Your task to perform on an android device: Open notification settings Image 0: 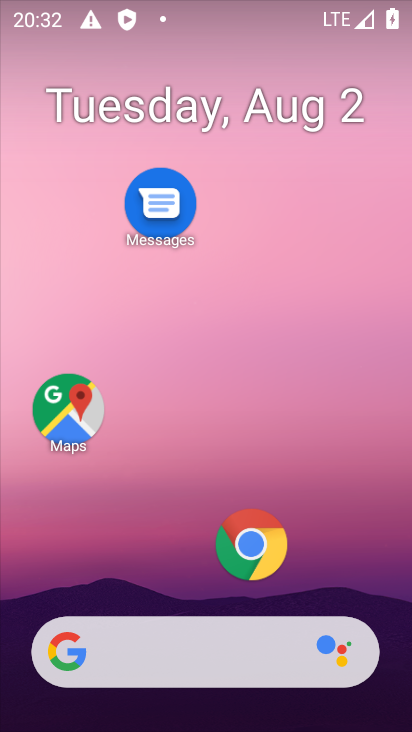
Step 0: drag from (161, 581) to (190, 154)
Your task to perform on an android device: Open notification settings Image 1: 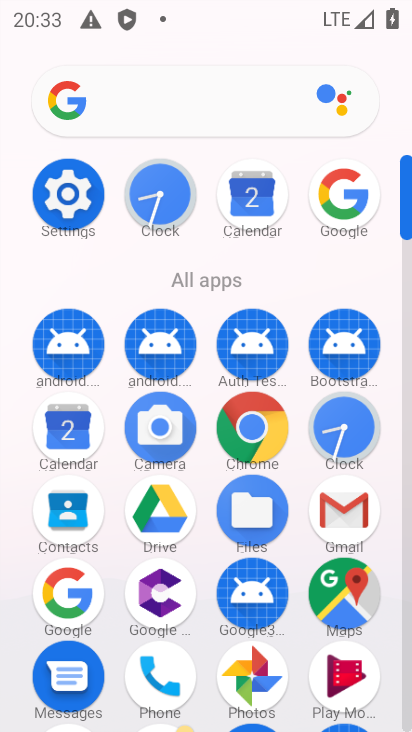
Step 1: click (87, 205)
Your task to perform on an android device: Open notification settings Image 2: 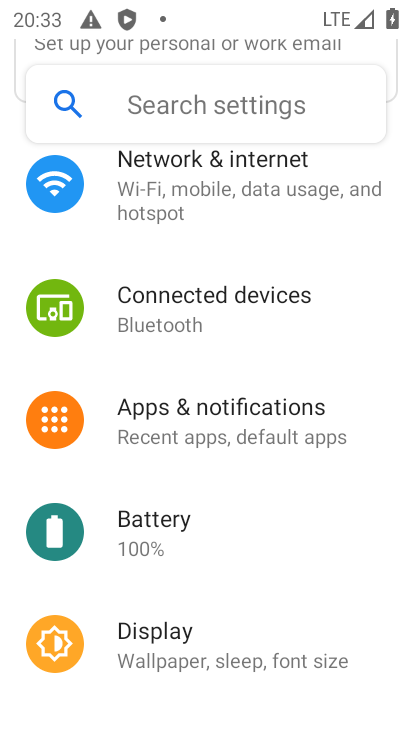
Step 2: drag from (207, 586) to (254, 326)
Your task to perform on an android device: Open notification settings Image 3: 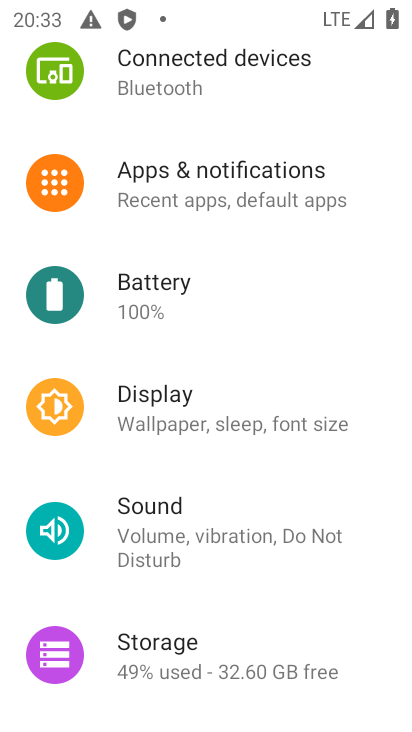
Step 3: click (211, 223)
Your task to perform on an android device: Open notification settings Image 4: 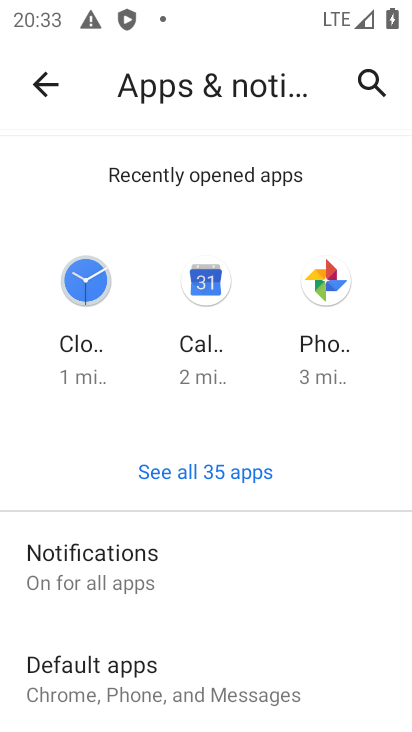
Step 4: click (139, 589)
Your task to perform on an android device: Open notification settings Image 5: 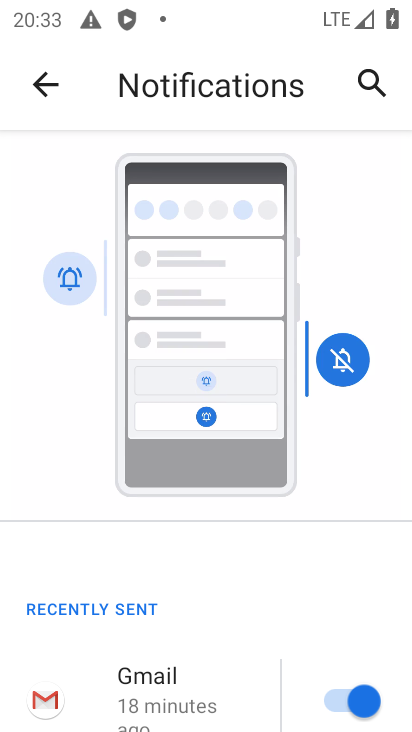
Step 5: task complete